Your task to perform on an android device: change keyboard looks Image 0: 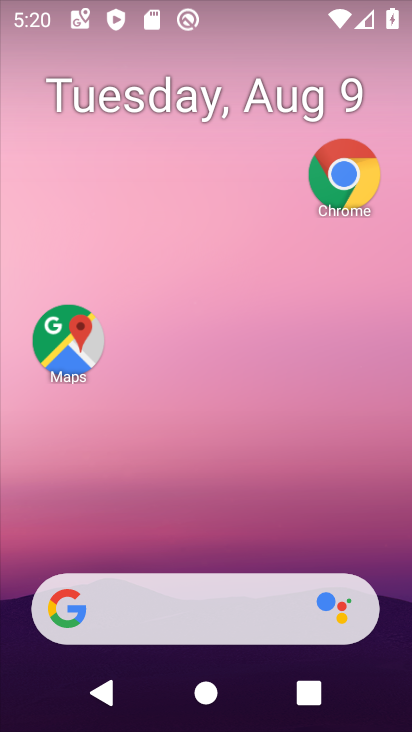
Step 0: drag from (168, 537) to (285, 236)
Your task to perform on an android device: change keyboard looks Image 1: 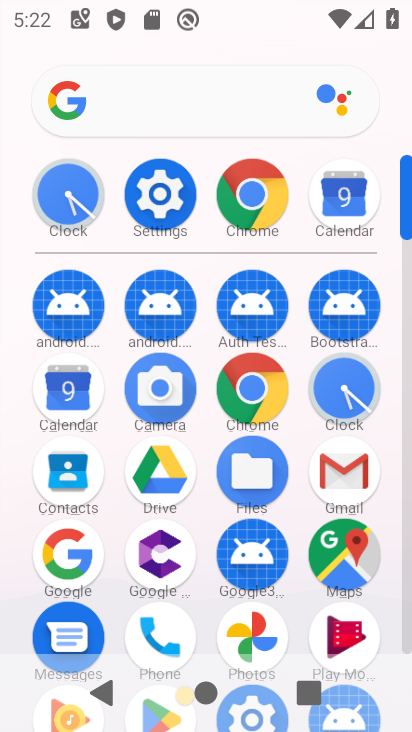
Step 1: click (146, 161)
Your task to perform on an android device: change keyboard looks Image 2: 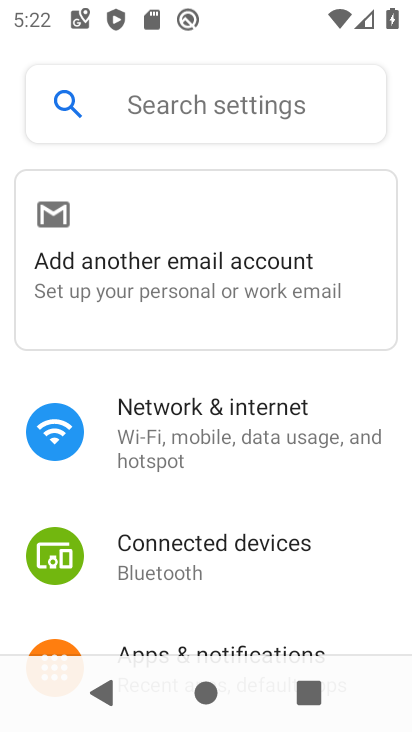
Step 2: drag from (208, 574) to (361, 43)
Your task to perform on an android device: change keyboard looks Image 3: 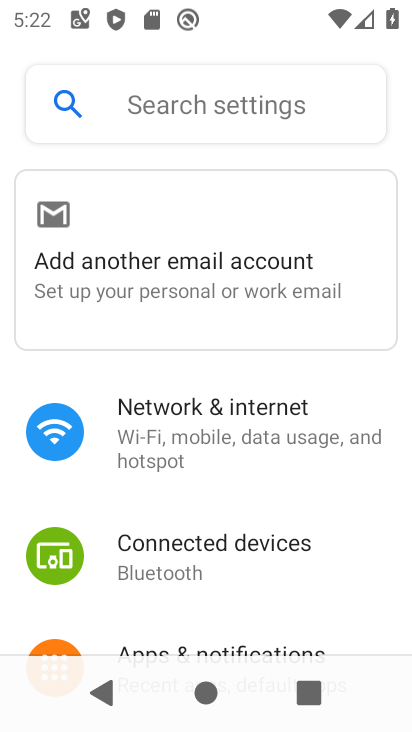
Step 3: drag from (203, 581) to (225, 1)
Your task to perform on an android device: change keyboard looks Image 4: 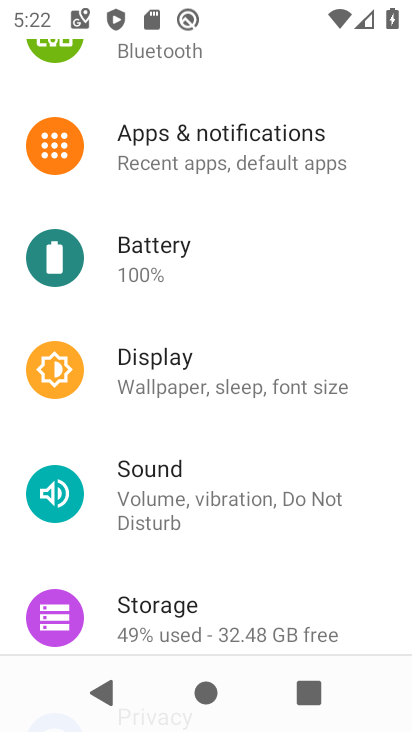
Step 4: drag from (219, 572) to (260, 79)
Your task to perform on an android device: change keyboard looks Image 5: 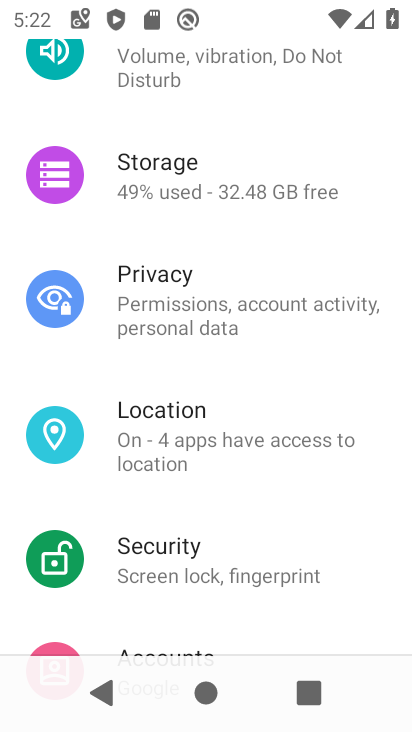
Step 5: drag from (177, 529) to (226, 90)
Your task to perform on an android device: change keyboard looks Image 6: 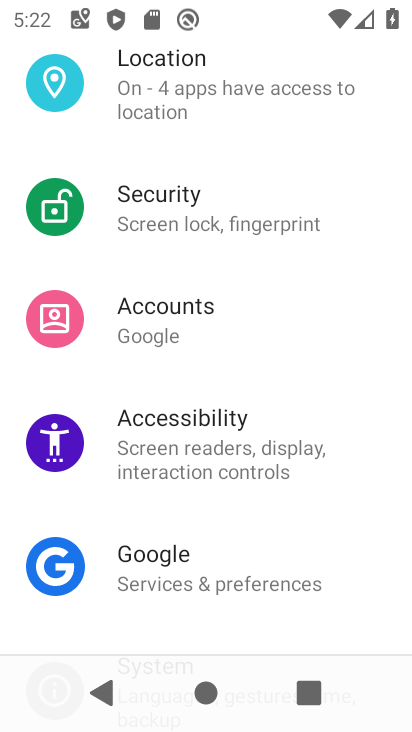
Step 6: drag from (197, 616) to (247, 26)
Your task to perform on an android device: change keyboard looks Image 7: 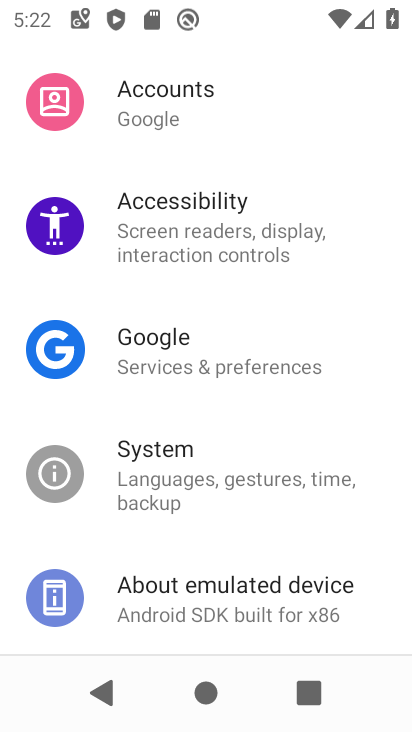
Step 7: drag from (203, 555) to (223, 188)
Your task to perform on an android device: change keyboard looks Image 8: 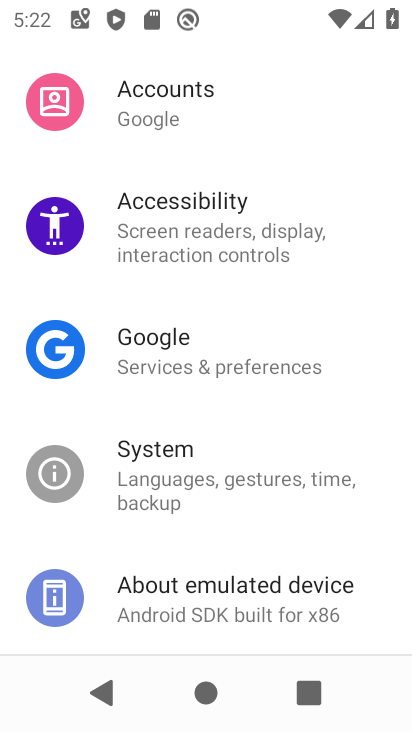
Step 8: click (147, 449)
Your task to perform on an android device: change keyboard looks Image 9: 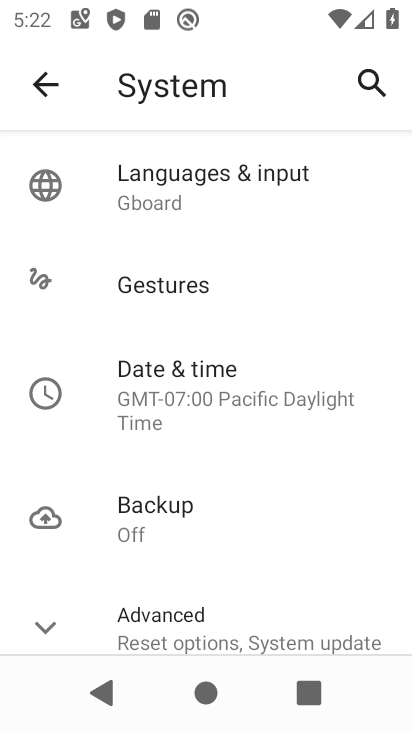
Step 9: drag from (191, 530) to (215, 223)
Your task to perform on an android device: change keyboard looks Image 10: 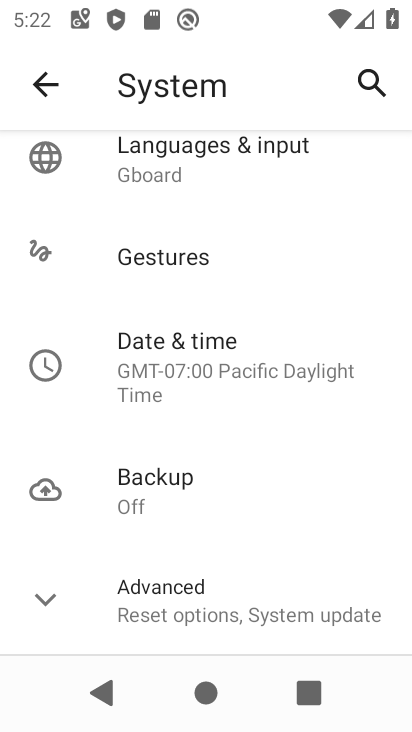
Step 10: drag from (173, 196) to (268, 683)
Your task to perform on an android device: change keyboard looks Image 11: 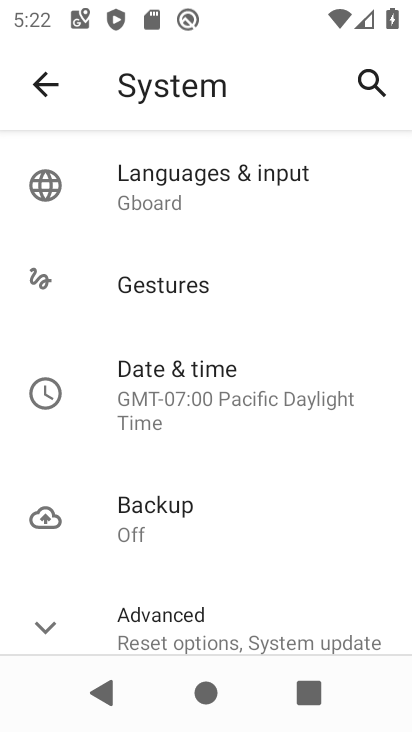
Step 11: click (154, 179)
Your task to perform on an android device: change keyboard looks Image 12: 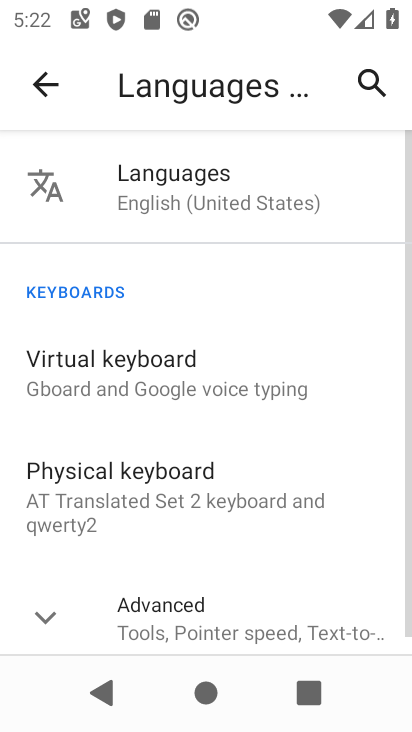
Step 12: click (146, 374)
Your task to perform on an android device: change keyboard looks Image 13: 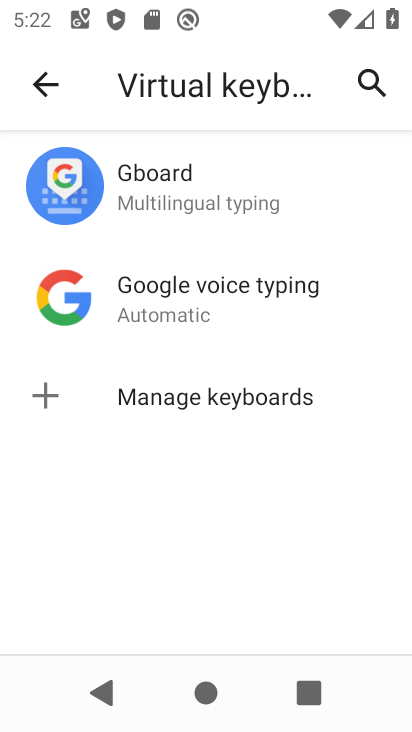
Step 13: click (187, 202)
Your task to perform on an android device: change keyboard looks Image 14: 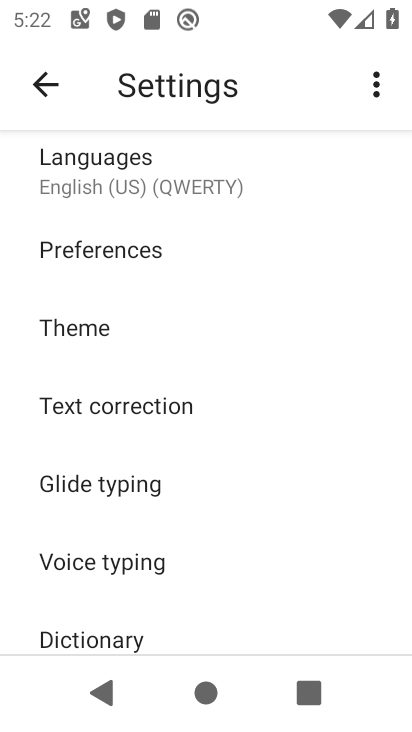
Step 14: click (144, 319)
Your task to perform on an android device: change keyboard looks Image 15: 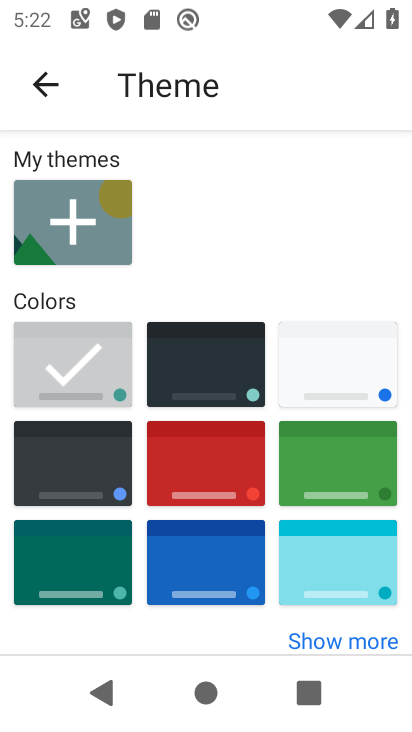
Step 15: click (210, 367)
Your task to perform on an android device: change keyboard looks Image 16: 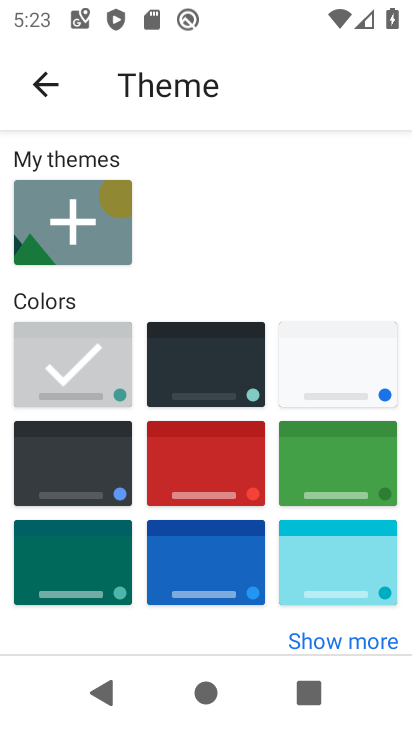
Step 16: click (194, 357)
Your task to perform on an android device: change keyboard looks Image 17: 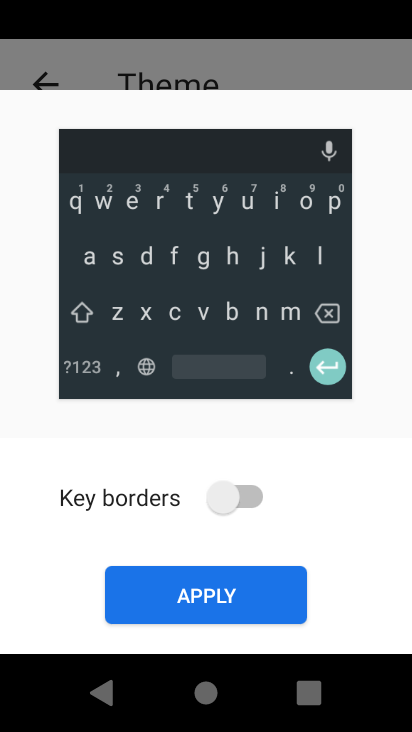
Step 17: click (173, 617)
Your task to perform on an android device: change keyboard looks Image 18: 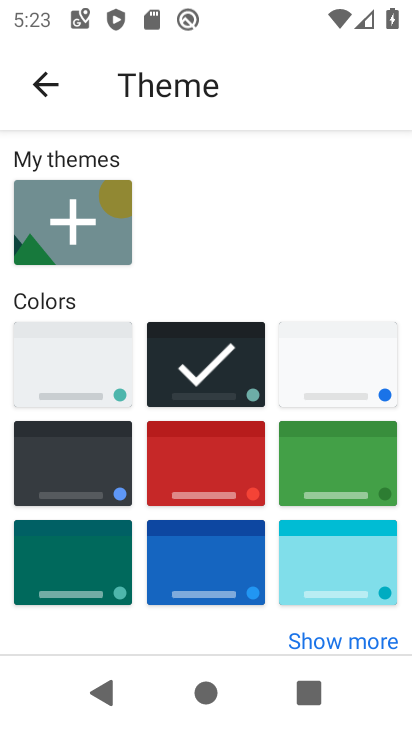
Step 18: task complete